Your task to perform on an android device: see sites visited before in the chrome app Image 0: 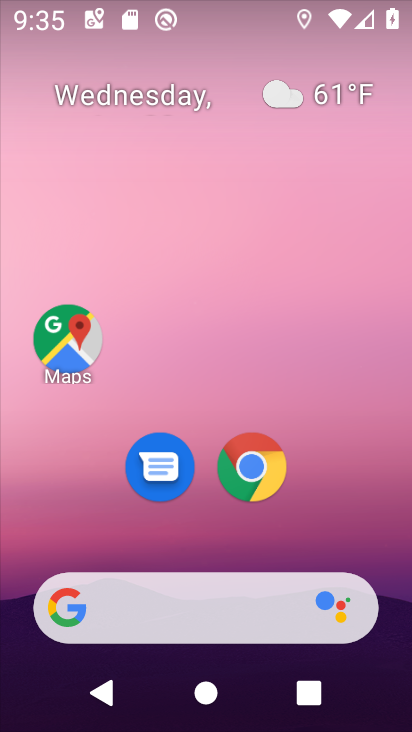
Step 0: drag from (355, 499) to (339, 118)
Your task to perform on an android device: see sites visited before in the chrome app Image 1: 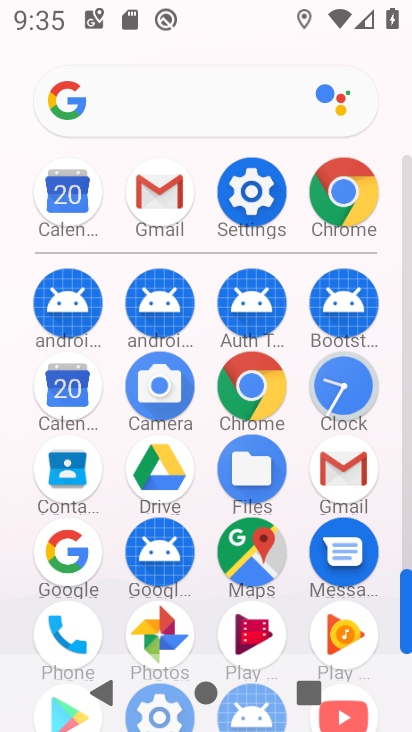
Step 1: click (352, 200)
Your task to perform on an android device: see sites visited before in the chrome app Image 2: 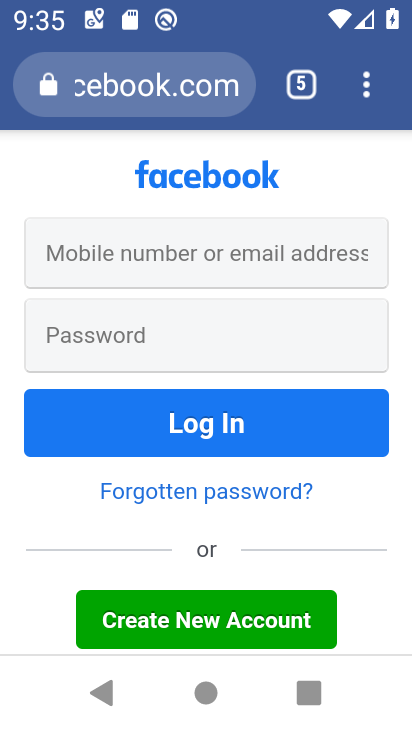
Step 2: task complete